Your task to perform on an android device: turn on the 24-hour format for clock Image 0: 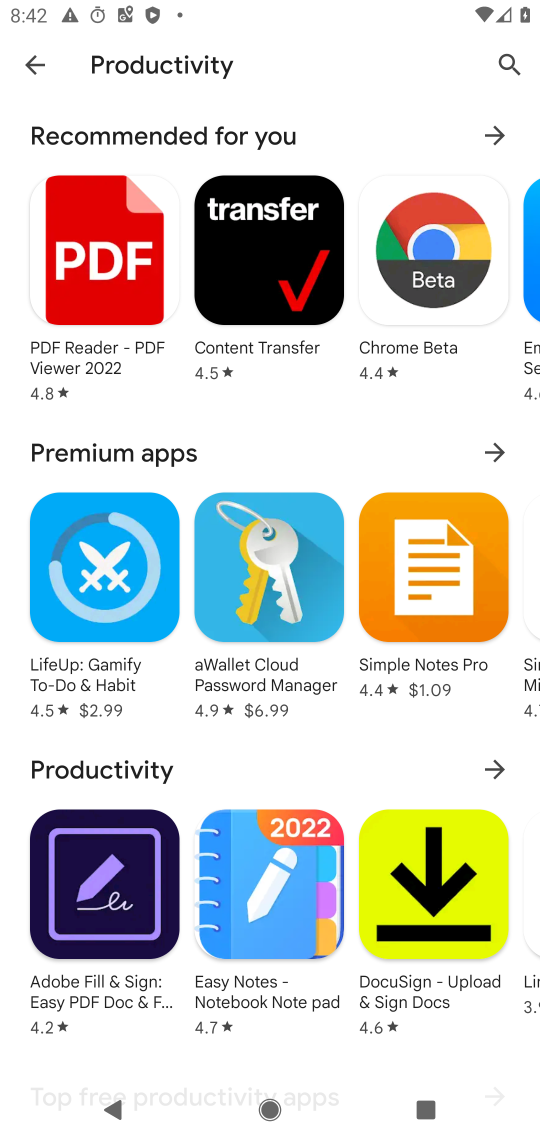
Step 0: press home button
Your task to perform on an android device: turn on the 24-hour format for clock Image 1: 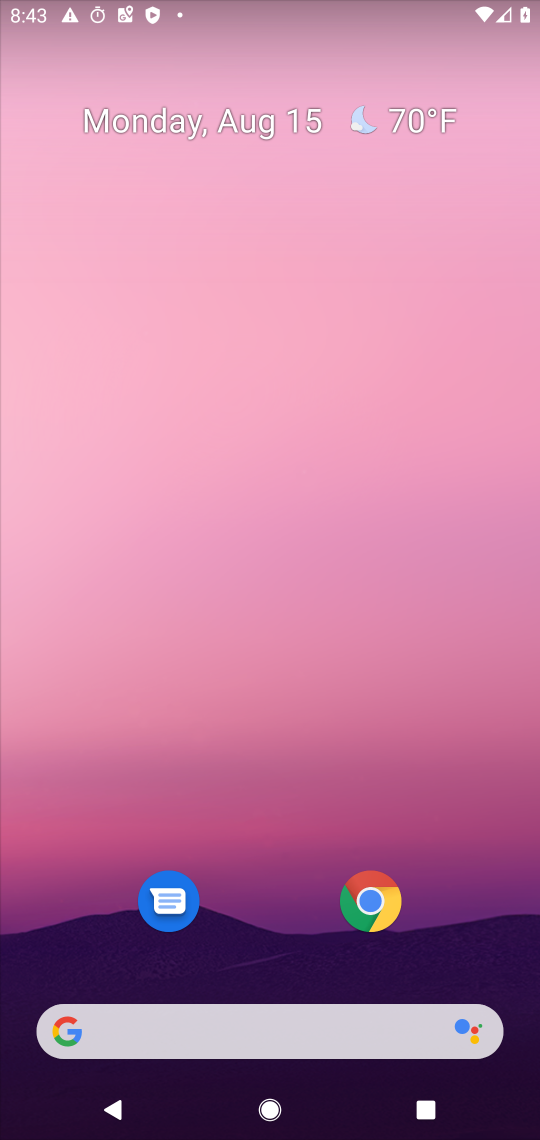
Step 1: drag from (206, 961) to (152, 16)
Your task to perform on an android device: turn on the 24-hour format for clock Image 2: 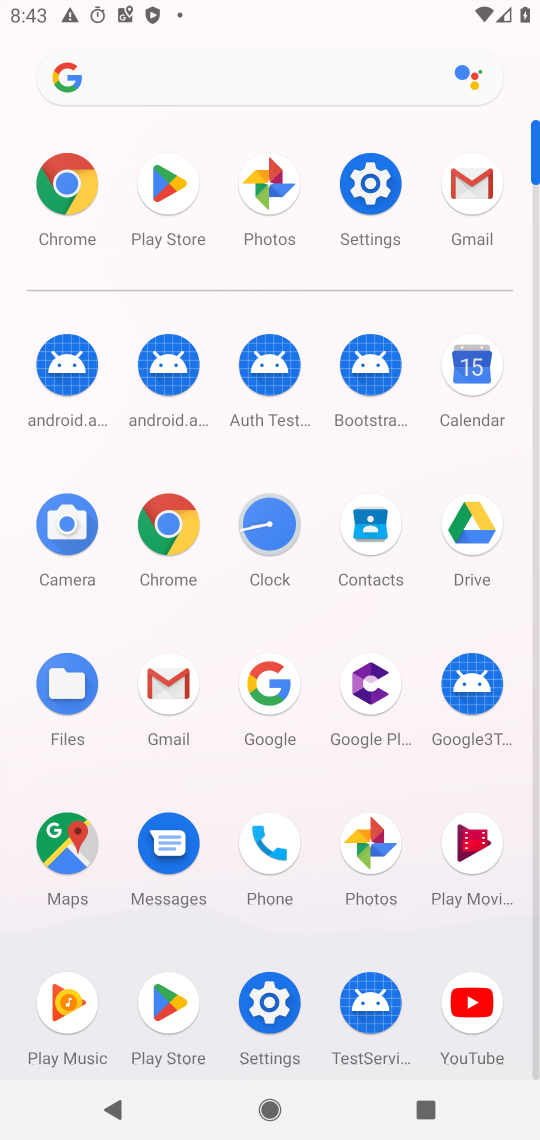
Step 2: click (260, 1008)
Your task to perform on an android device: turn on the 24-hour format for clock Image 3: 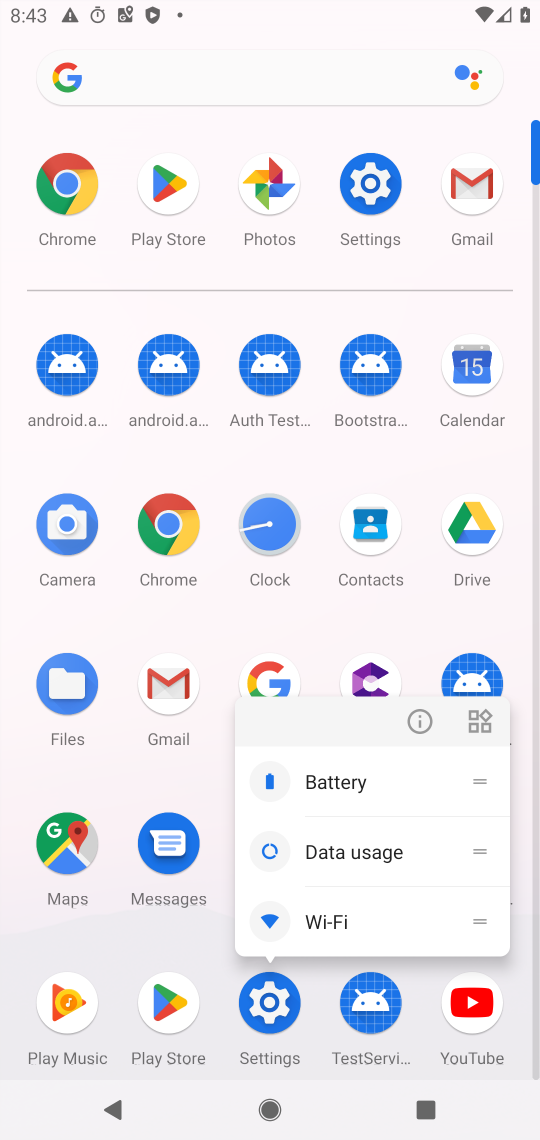
Step 3: click (272, 1020)
Your task to perform on an android device: turn on the 24-hour format for clock Image 4: 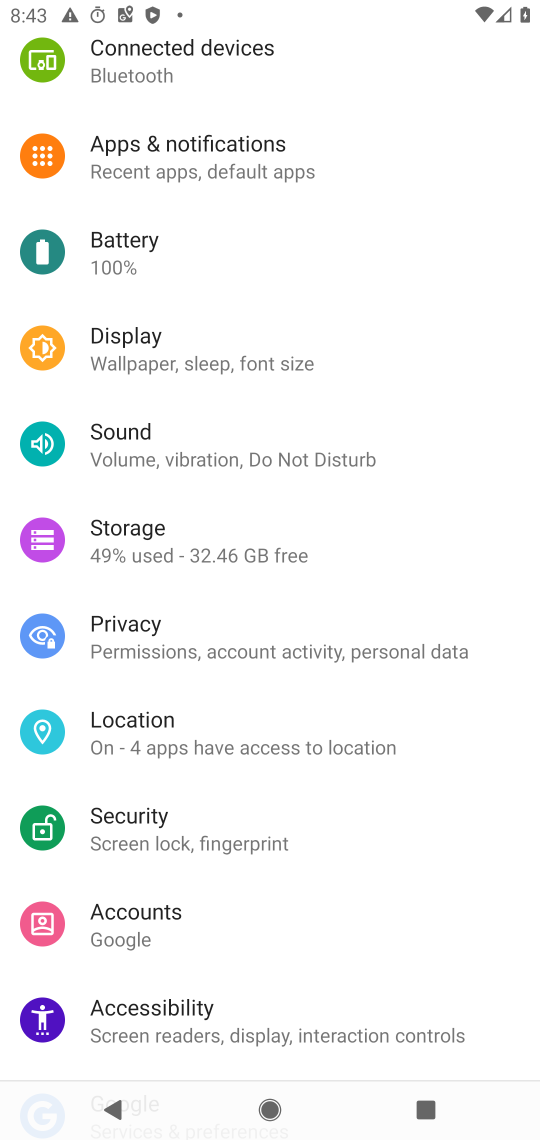
Step 4: drag from (196, 901) to (282, 0)
Your task to perform on an android device: turn on the 24-hour format for clock Image 5: 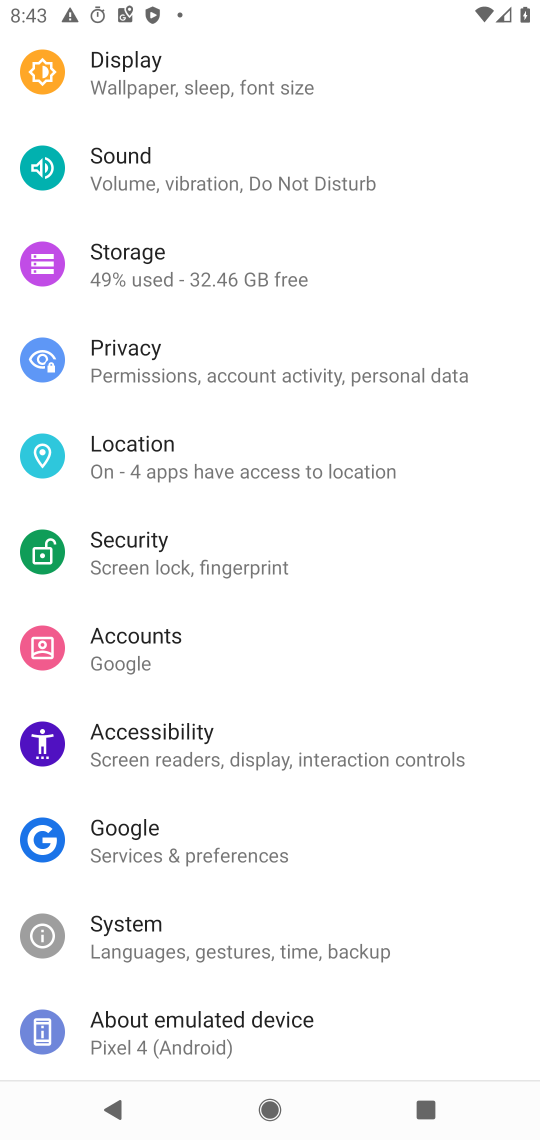
Step 5: click (197, 965)
Your task to perform on an android device: turn on the 24-hour format for clock Image 6: 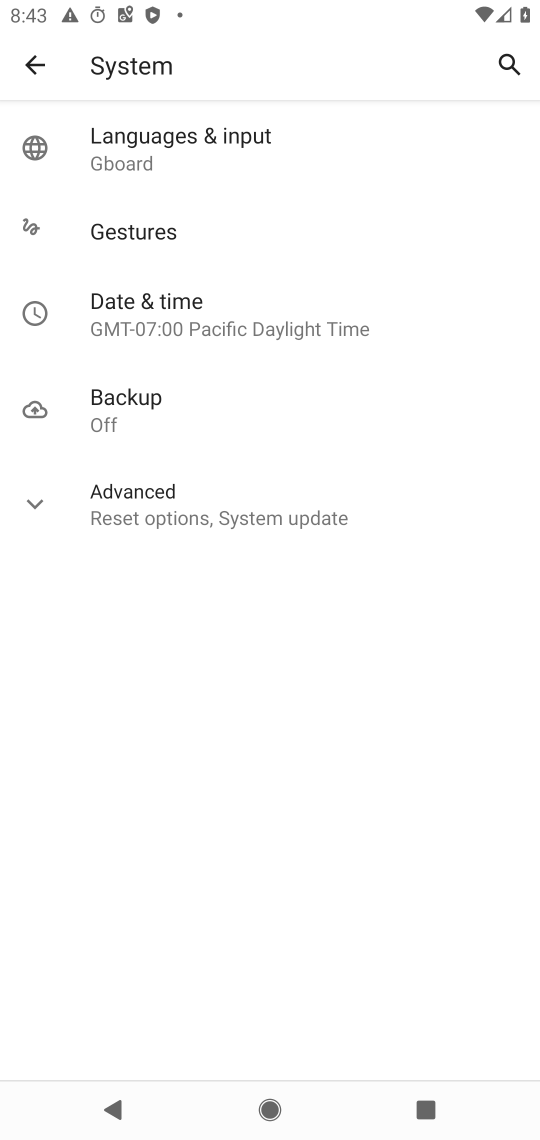
Step 6: click (194, 328)
Your task to perform on an android device: turn on the 24-hour format for clock Image 7: 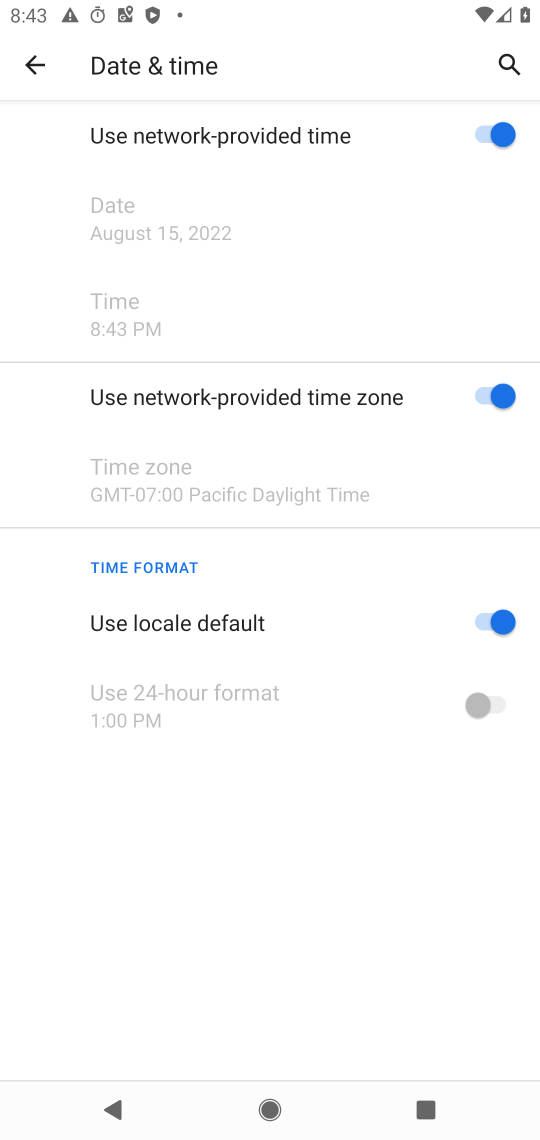
Step 7: click (465, 621)
Your task to perform on an android device: turn on the 24-hour format for clock Image 8: 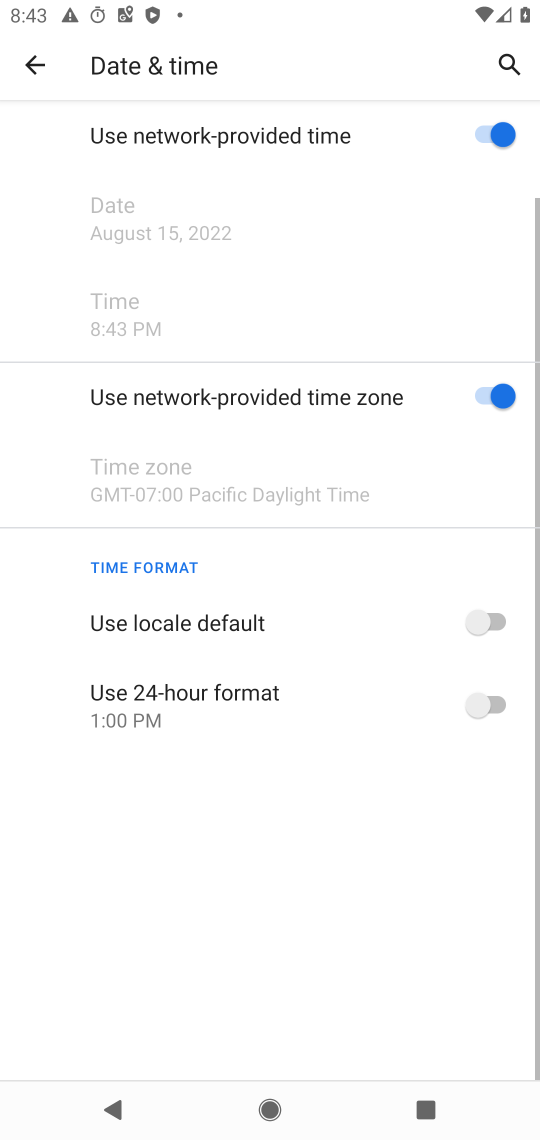
Step 8: click (513, 697)
Your task to perform on an android device: turn on the 24-hour format for clock Image 9: 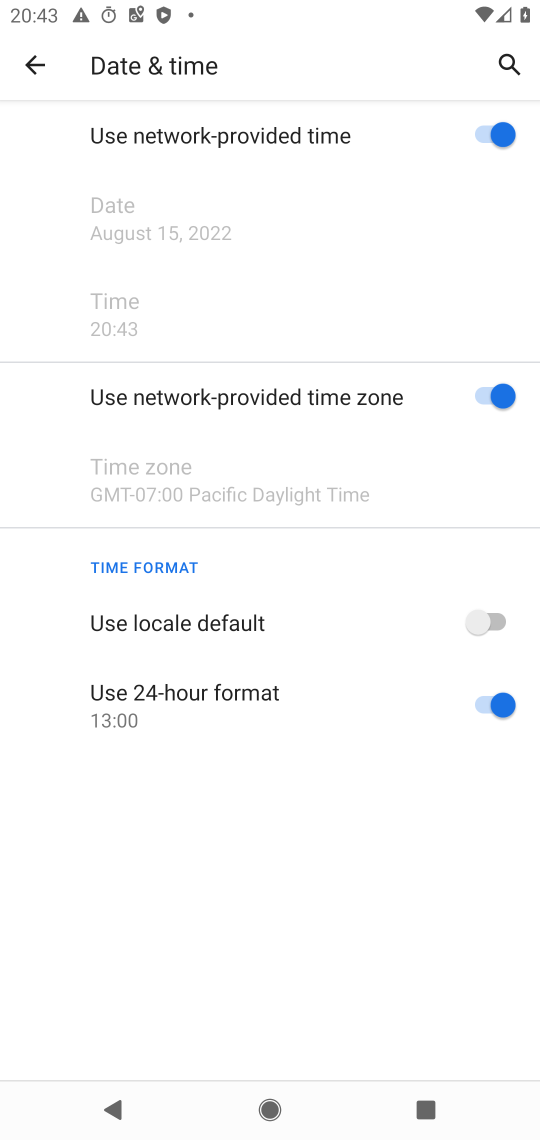
Step 9: task complete